Your task to perform on an android device: turn smart compose on in the gmail app Image 0: 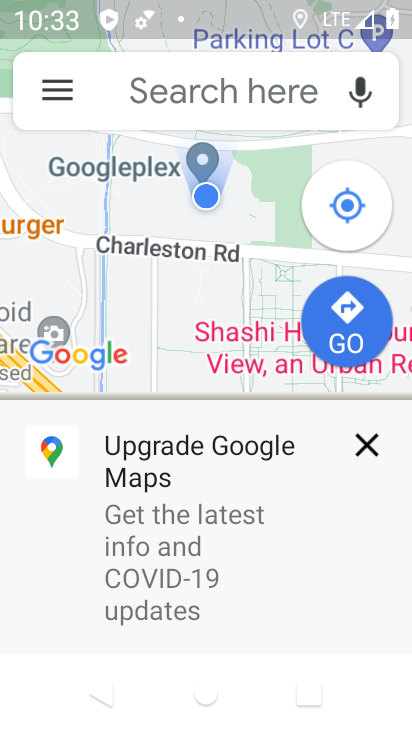
Step 0: click (233, 124)
Your task to perform on an android device: turn smart compose on in the gmail app Image 1: 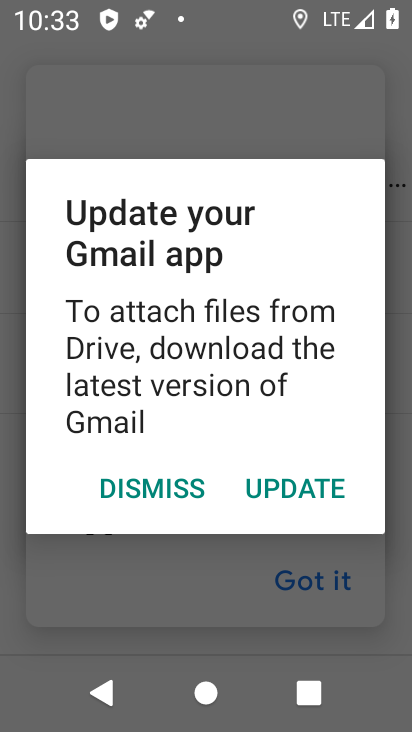
Step 1: press home button
Your task to perform on an android device: turn smart compose on in the gmail app Image 2: 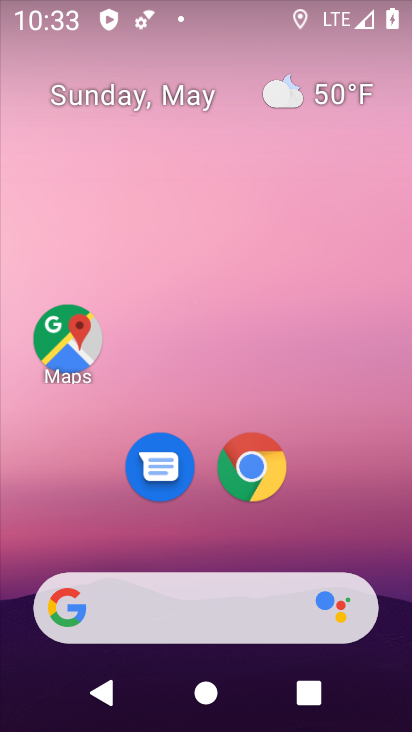
Step 2: drag from (209, 512) to (218, 178)
Your task to perform on an android device: turn smart compose on in the gmail app Image 3: 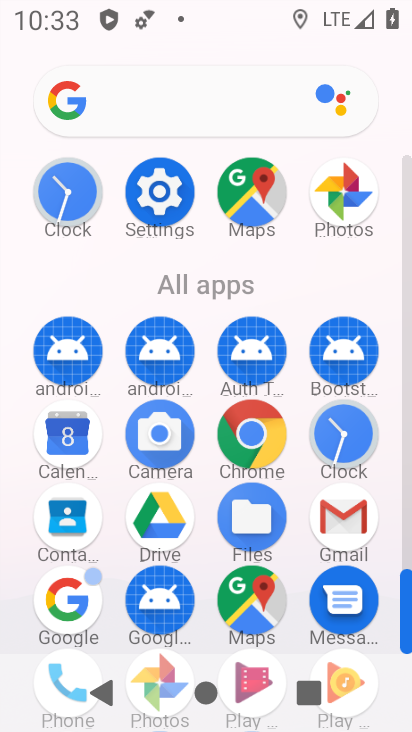
Step 3: click (328, 515)
Your task to perform on an android device: turn smart compose on in the gmail app Image 4: 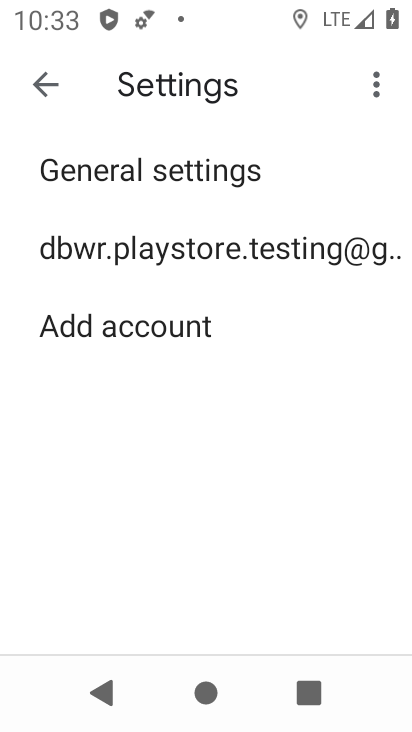
Step 4: click (312, 242)
Your task to perform on an android device: turn smart compose on in the gmail app Image 5: 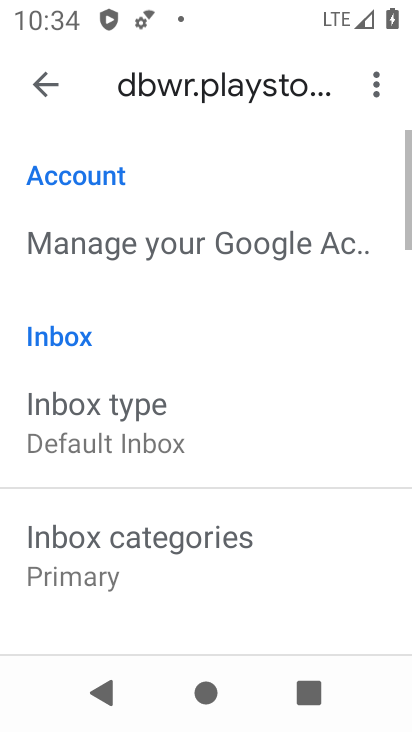
Step 5: task complete